Your task to perform on an android device: turn on translation in the chrome app Image 0: 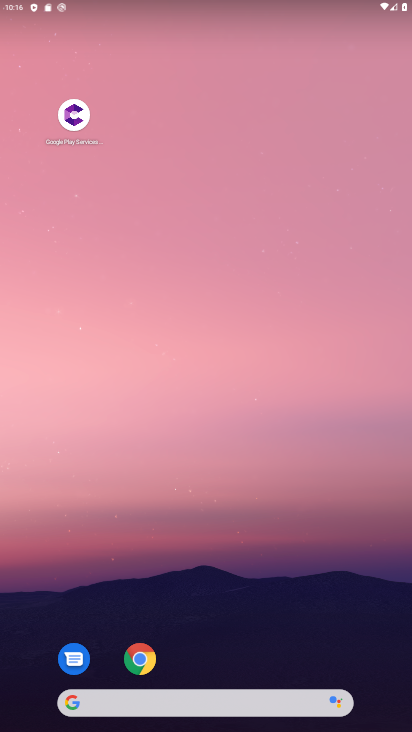
Step 0: click (132, 657)
Your task to perform on an android device: turn on translation in the chrome app Image 1: 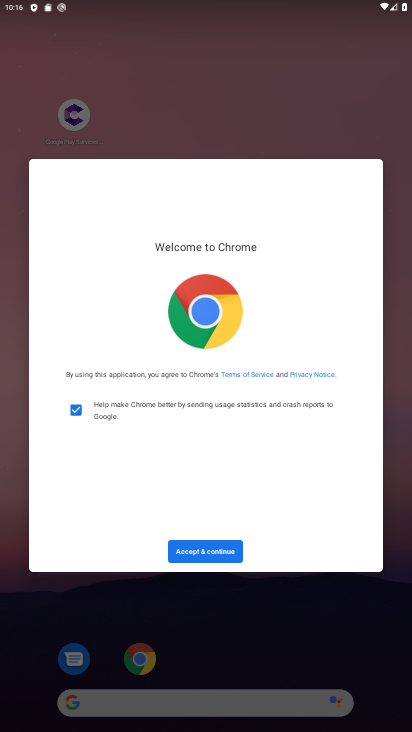
Step 1: click (225, 561)
Your task to perform on an android device: turn on translation in the chrome app Image 2: 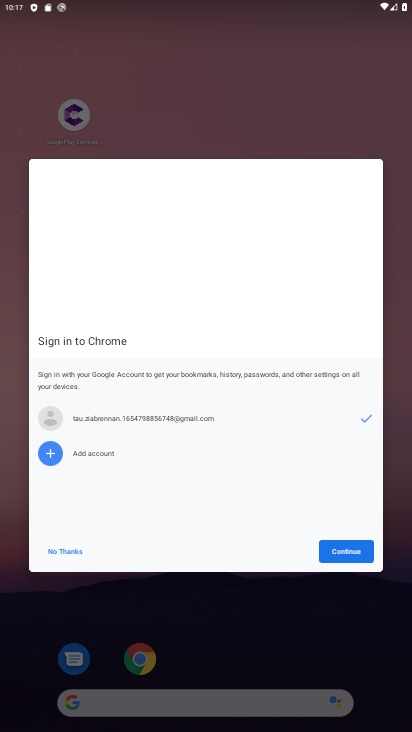
Step 2: click (366, 553)
Your task to perform on an android device: turn on translation in the chrome app Image 3: 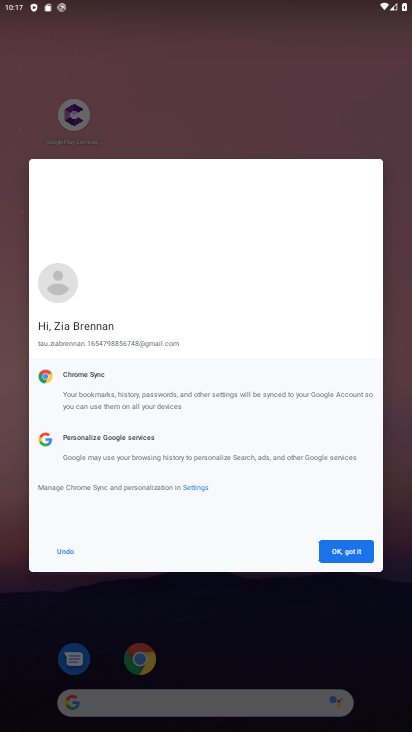
Step 3: click (365, 555)
Your task to perform on an android device: turn on translation in the chrome app Image 4: 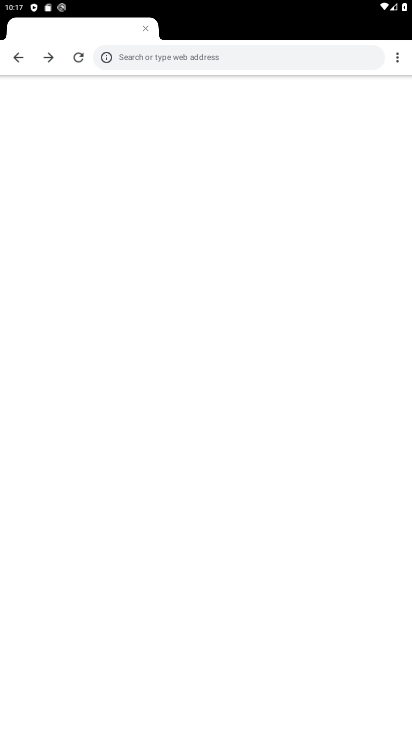
Step 4: press back button
Your task to perform on an android device: turn on translation in the chrome app Image 5: 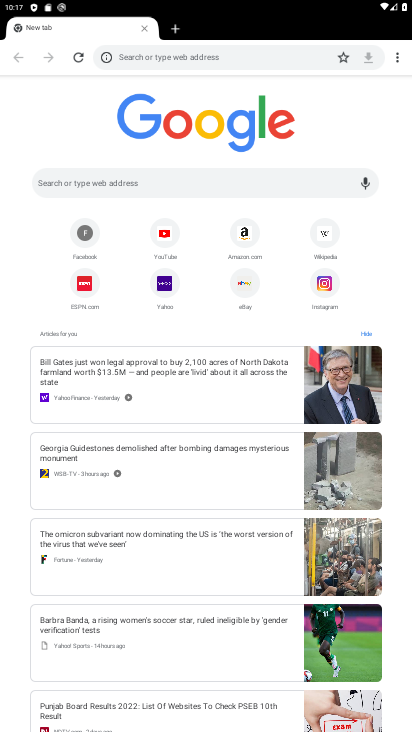
Step 5: press back button
Your task to perform on an android device: turn on translation in the chrome app Image 6: 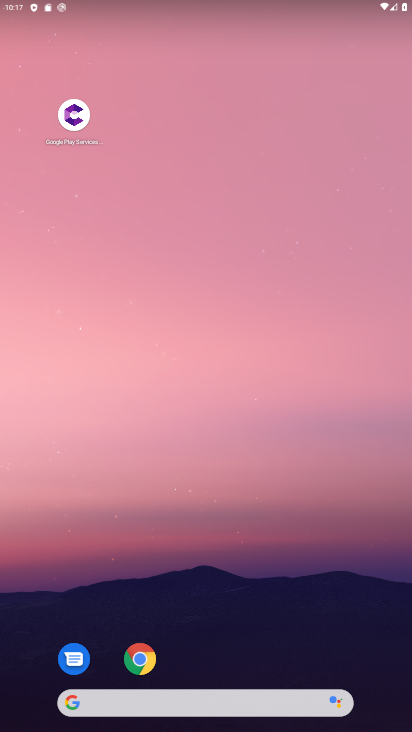
Step 6: click (141, 656)
Your task to perform on an android device: turn on translation in the chrome app Image 7: 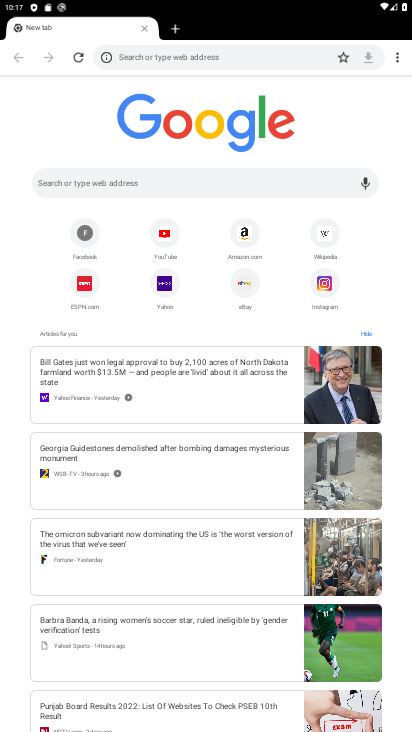
Step 7: click (399, 57)
Your task to perform on an android device: turn on translation in the chrome app Image 8: 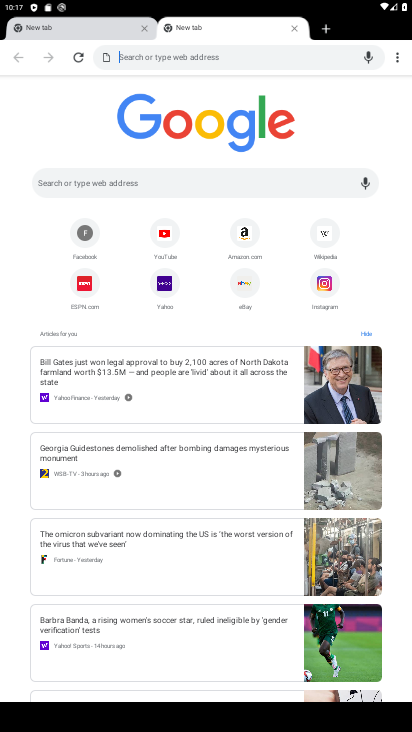
Step 8: drag from (401, 54) to (279, 264)
Your task to perform on an android device: turn on translation in the chrome app Image 9: 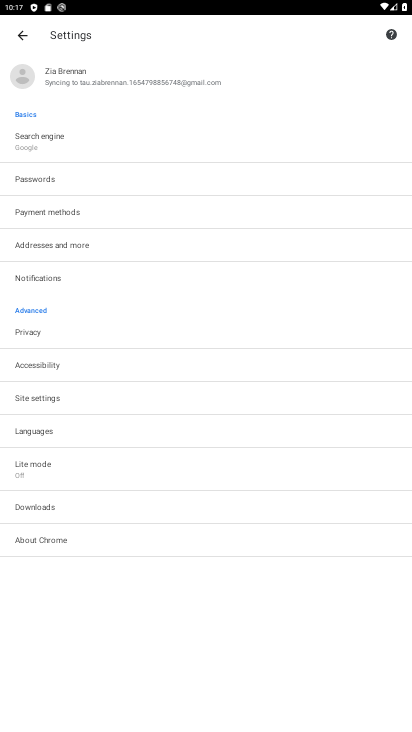
Step 9: click (43, 429)
Your task to perform on an android device: turn on translation in the chrome app Image 10: 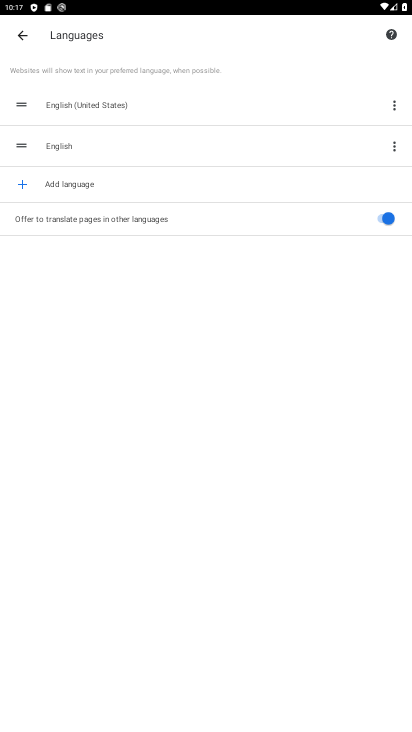
Step 10: task complete